Your task to perform on an android device: Open battery settings Image 0: 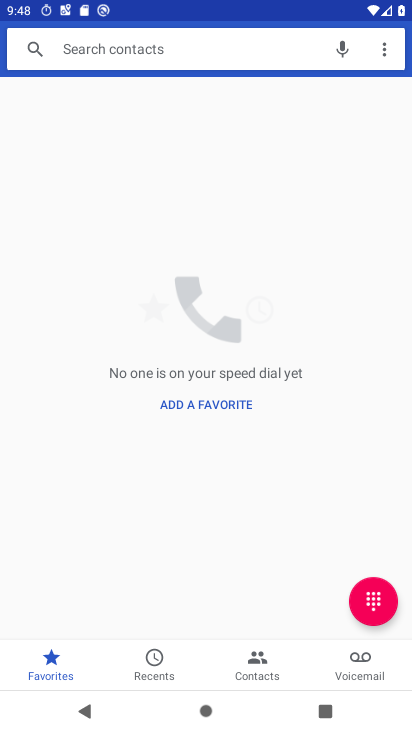
Step 0: press home button
Your task to perform on an android device: Open battery settings Image 1: 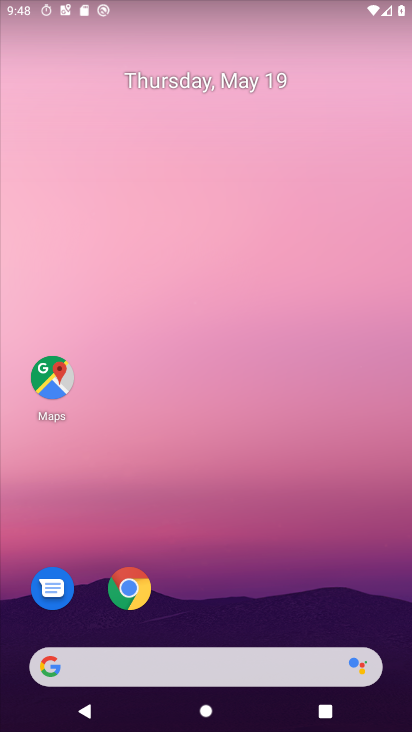
Step 1: drag from (221, 665) to (303, 150)
Your task to perform on an android device: Open battery settings Image 2: 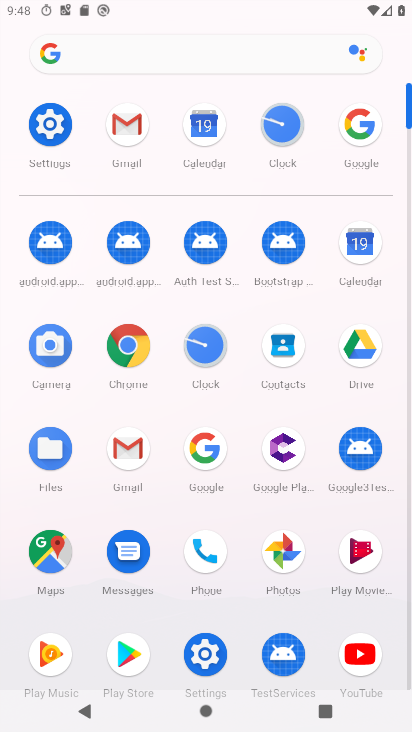
Step 2: click (51, 127)
Your task to perform on an android device: Open battery settings Image 3: 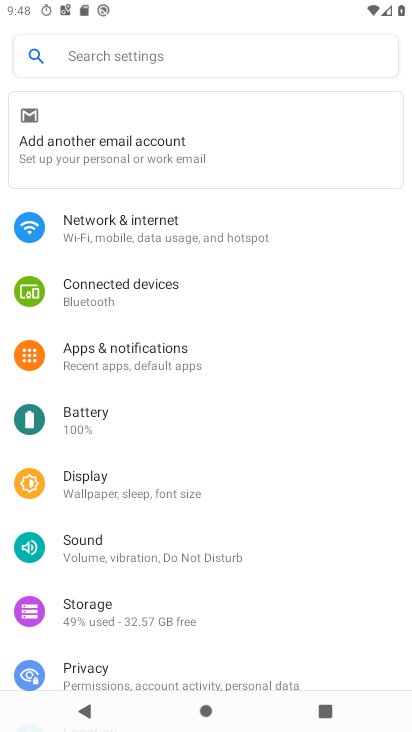
Step 3: click (98, 410)
Your task to perform on an android device: Open battery settings Image 4: 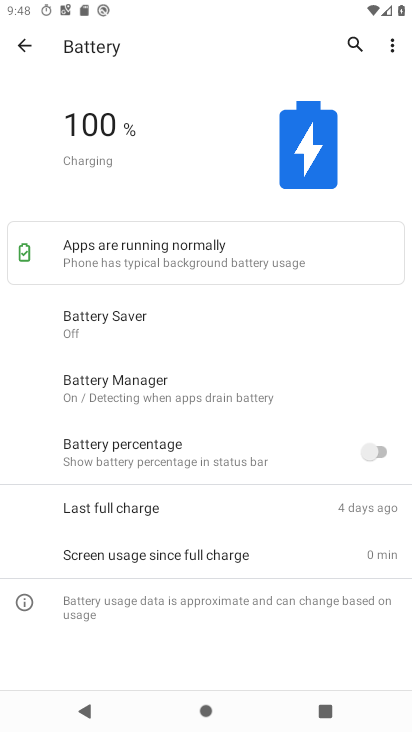
Step 4: task complete